Your task to perform on an android device: Open the web browser Image 0: 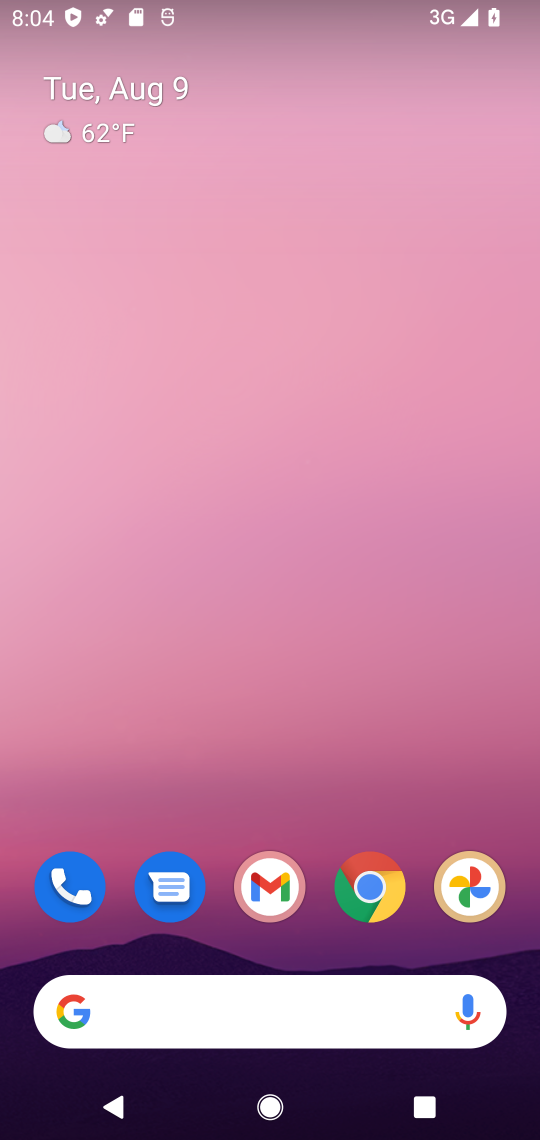
Step 0: click (384, 1012)
Your task to perform on an android device: Open the web browser Image 1: 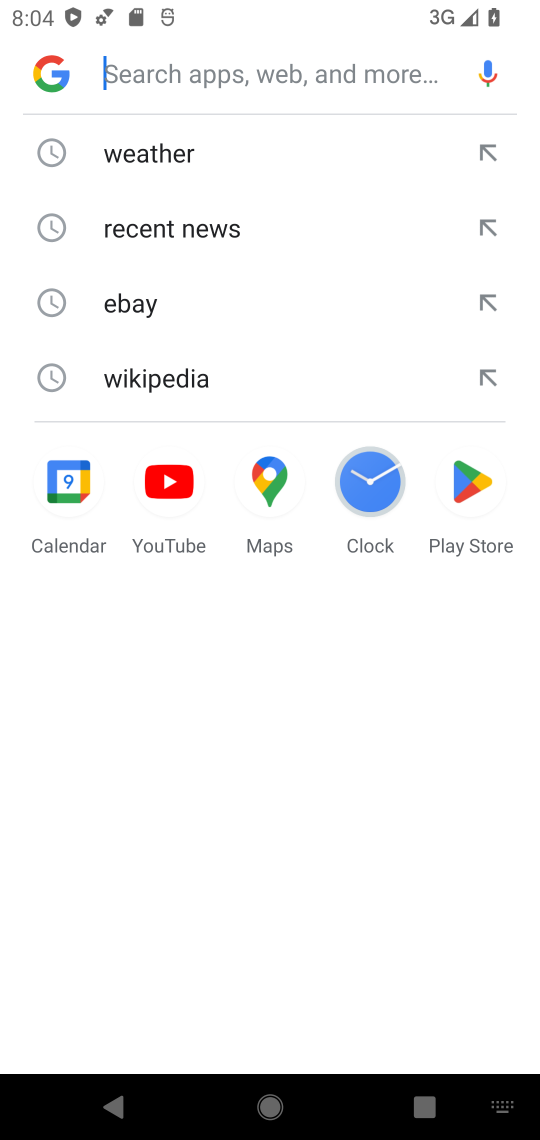
Step 1: task complete